Your task to perform on an android device: Open the Play Movies app and select the watchlist tab. Image 0: 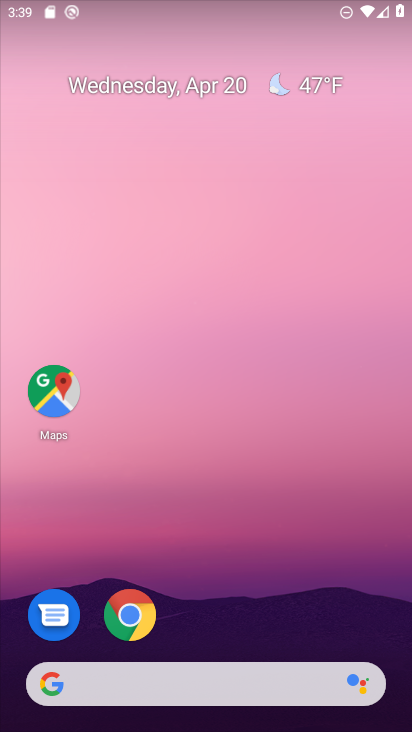
Step 0: drag from (219, 624) to (261, 84)
Your task to perform on an android device: Open the Play Movies app and select the watchlist tab. Image 1: 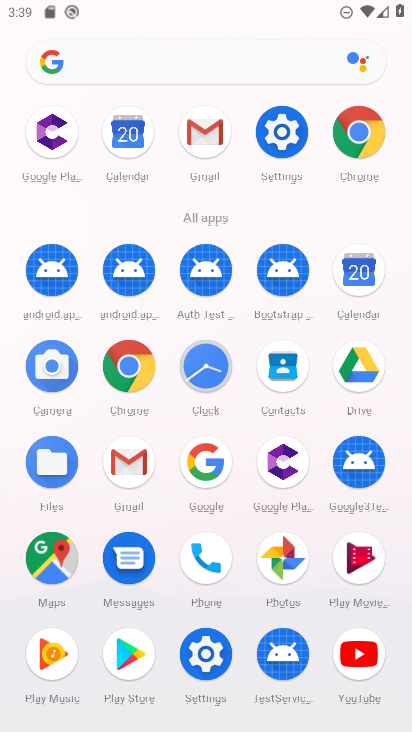
Step 1: click (365, 563)
Your task to perform on an android device: Open the Play Movies app and select the watchlist tab. Image 2: 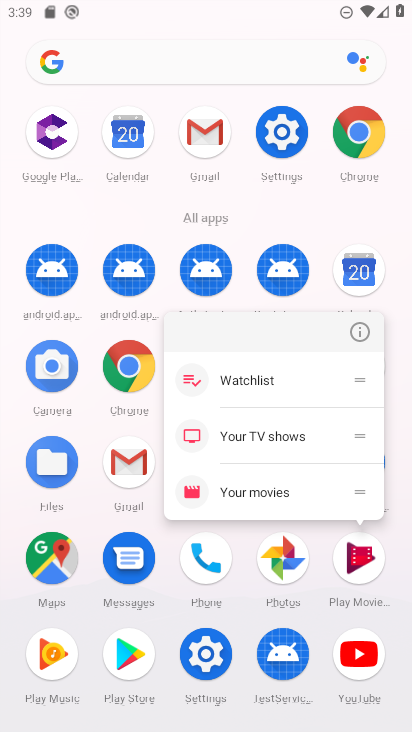
Step 2: click (365, 563)
Your task to perform on an android device: Open the Play Movies app and select the watchlist tab. Image 3: 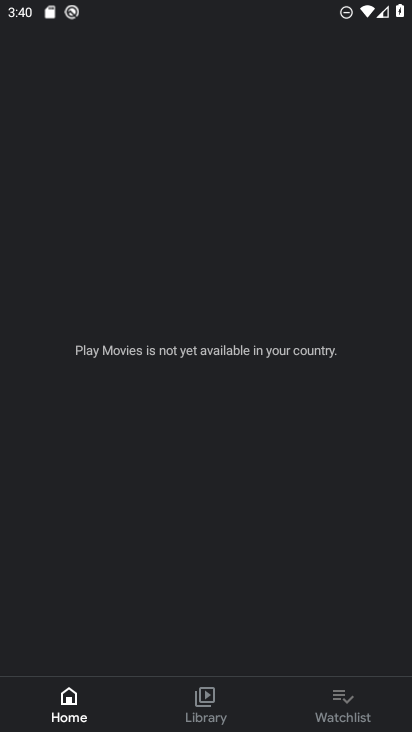
Step 3: click (332, 698)
Your task to perform on an android device: Open the Play Movies app and select the watchlist tab. Image 4: 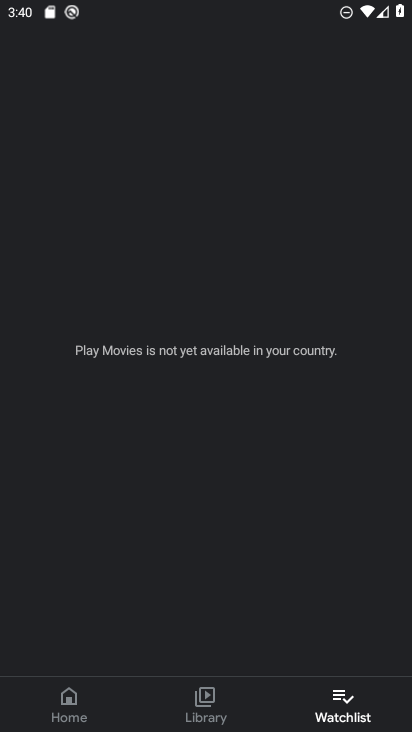
Step 4: task complete